Your task to perform on an android device: Open battery settings Image 0: 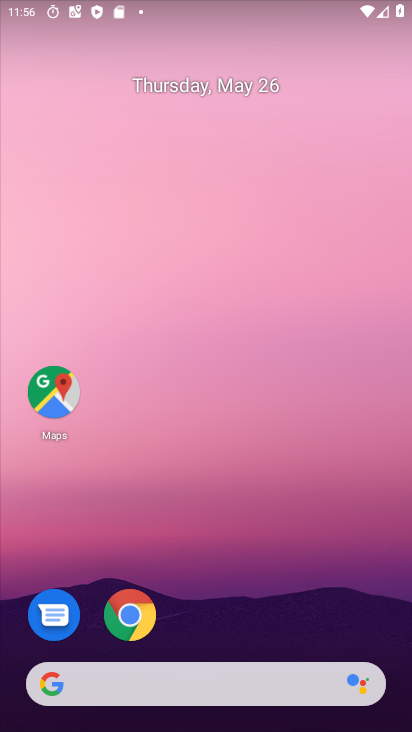
Step 0: drag from (267, 593) to (232, 72)
Your task to perform on an android device: Open battery settings Image 1: 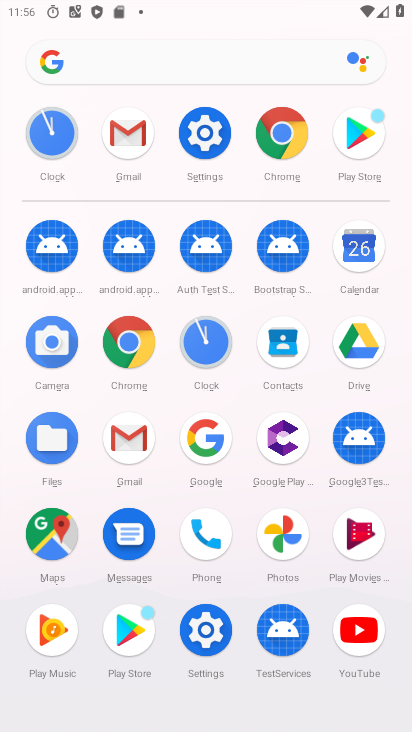
Step 1: click (213, 146)
Your task to perform on an android device: Open battery settings Image 2: 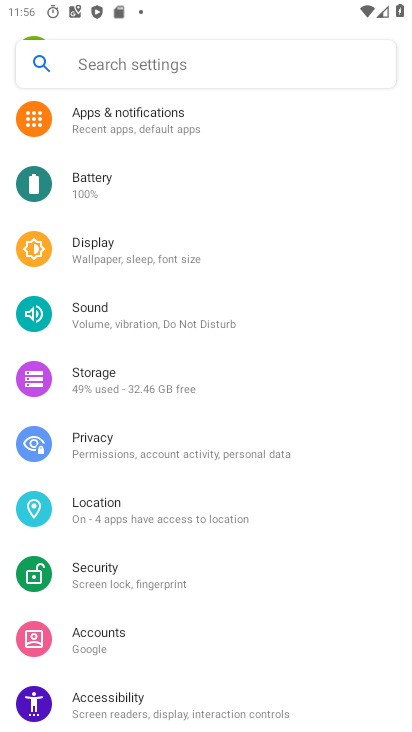
Step 2: click (136, 183)
Your task to perform on an android device: Open battery settings Image 3: 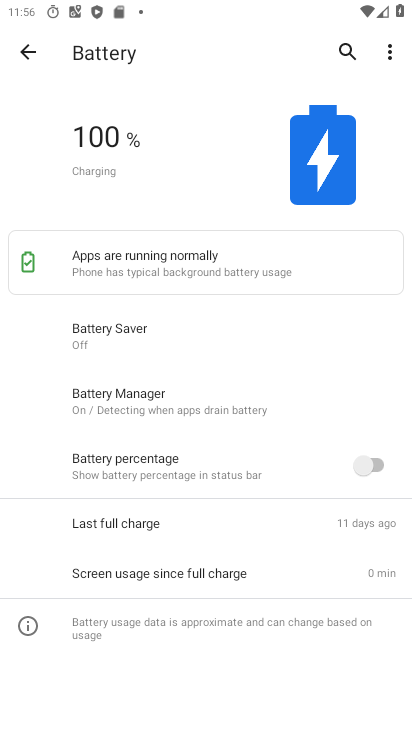
Step 3: task complete